Your task to perform on an android device: toggle airplane mode Image 0: 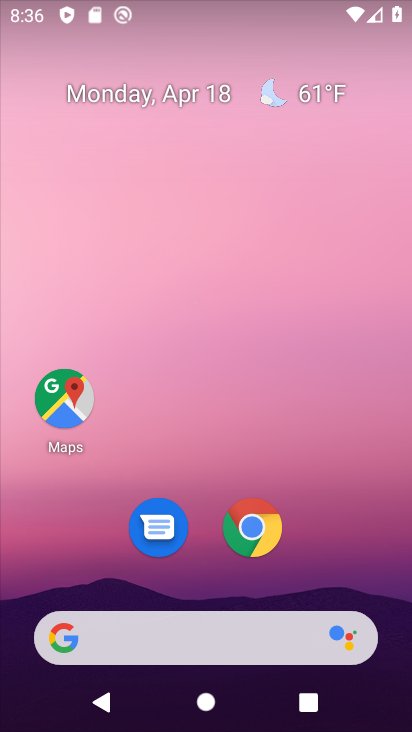
Step 0: drag from (315, 12) to (369, 690)
Your task to perform on an android device: toggle airplane mode Image 1: 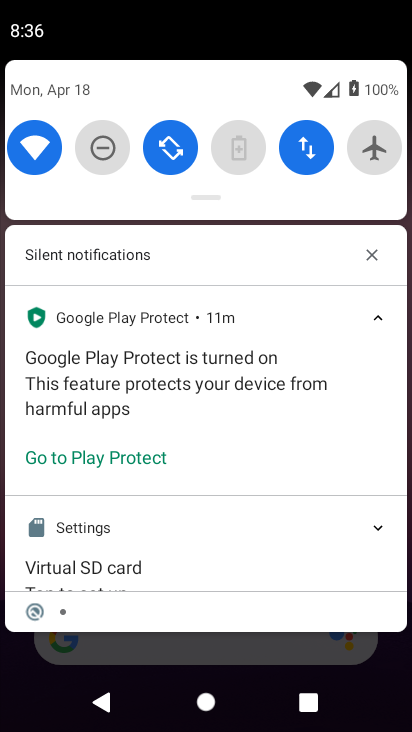
Step 1: click (378, 131)
Your task to perform on an android device: toggle airplane mode Image 2: 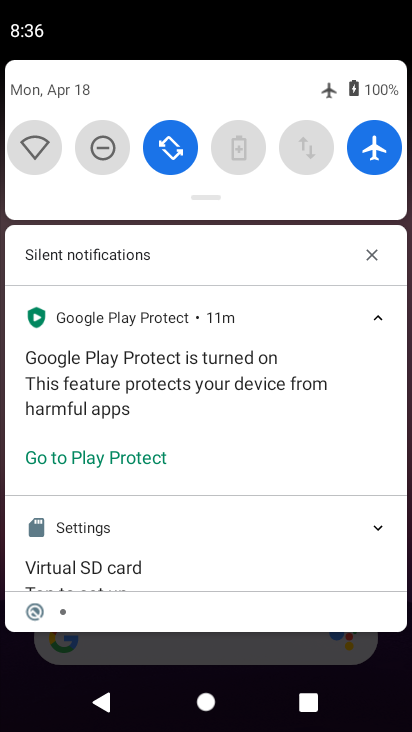
Step 2: click (378, 131)
Your task to perform on an android device: toggle airplane mode Image 3: 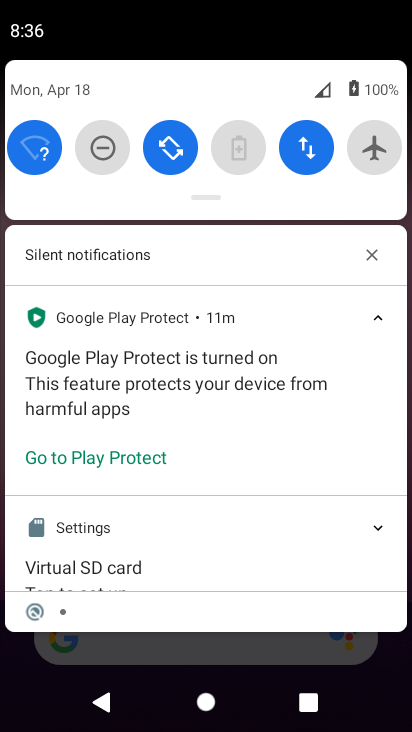
Step 3: click (378, 131)
Your task to perform on an android device: toggle airplane mode Image 4: 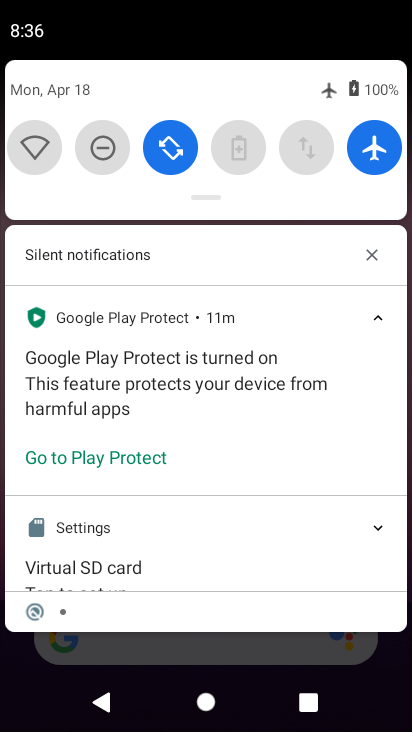
Step 4: click (378, 131)
Your task to perform on an android device: toggle airplane mode Image 5: 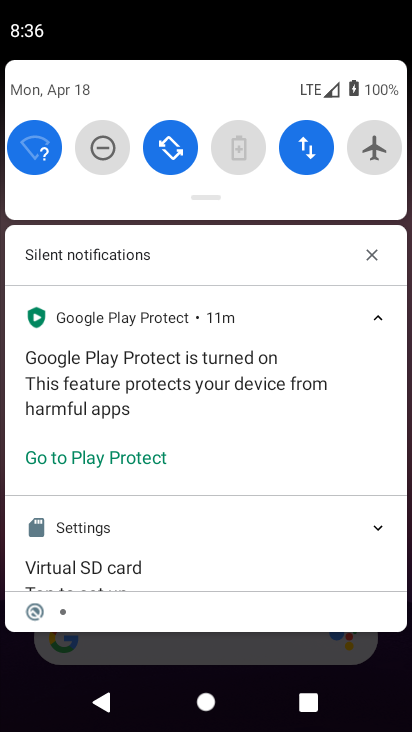
Step 5: task complete